Your task to perform on an android device: add a contact Image 0: 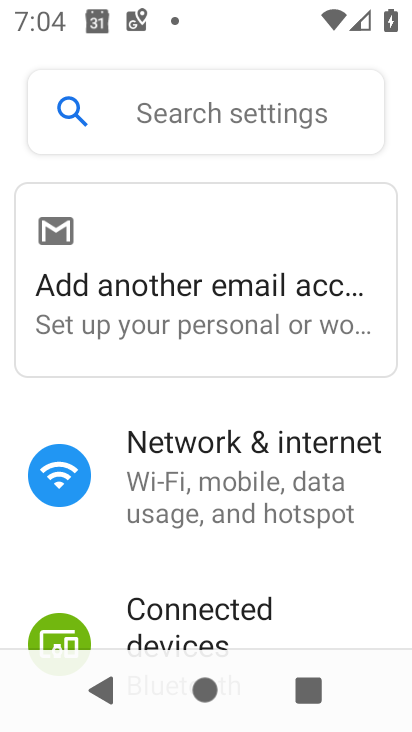
Step 0: press back button
Your task to perform on an android device: add a contact Image 1: 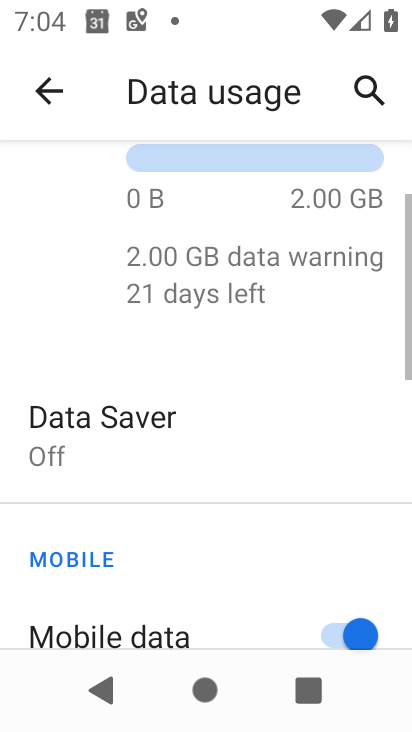
Step 1: press back button
Your task to perform on an android device: add a contact Image 2: 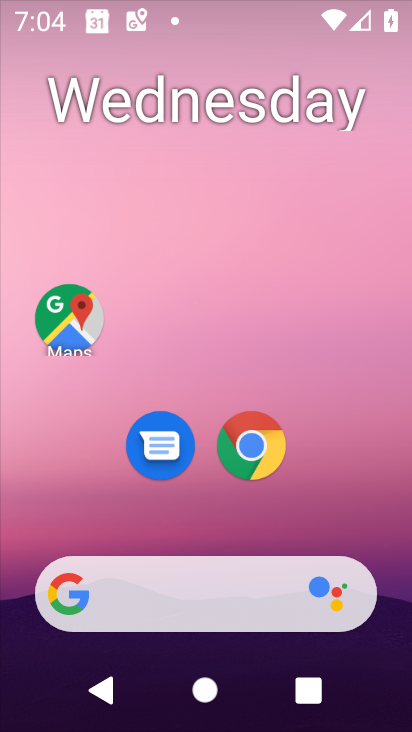
Step 2: press back button
Your task to perform on an android device: add a contact Image 3: 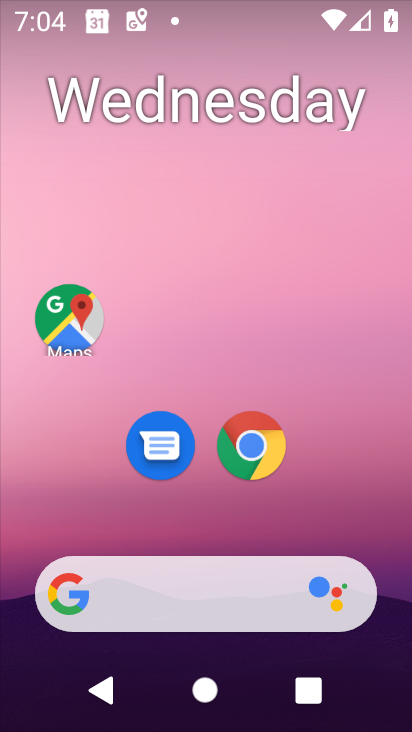
Step 3: drag from (322, 514) to (216, 63)
Your task to perform on an android device: add a contact Image 4: 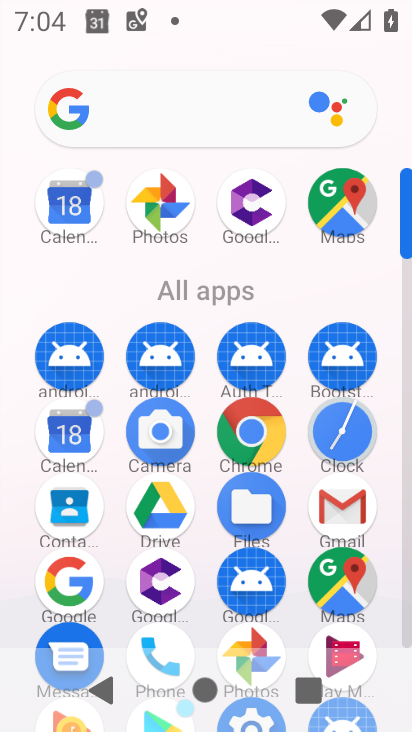
Step 4: drag from (201, 537) to (180, 338)
Your task to perform on an android device: add a contact Image 5: 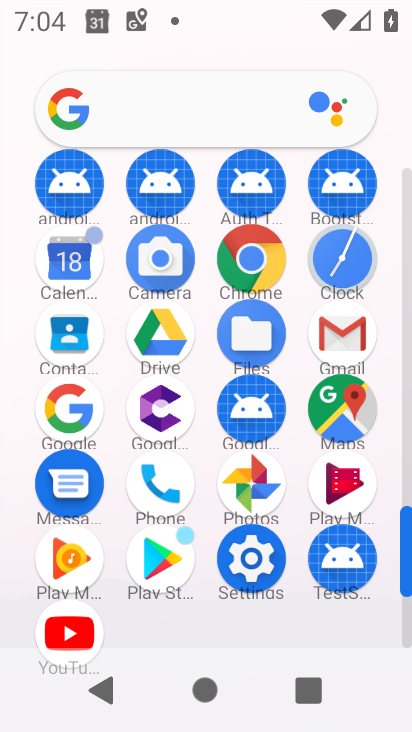
Step 5: click (73, 328)
Your task to perform on an android device: add a contact Image 6: 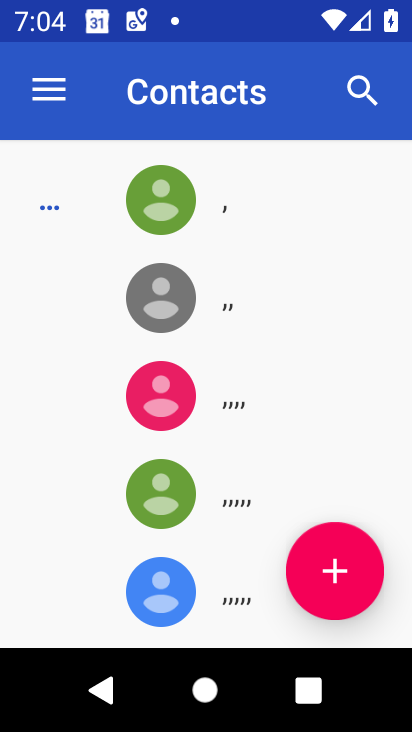
Step 6: click (333, 568)
Your task to perform on an android device: add a contact Image 7: 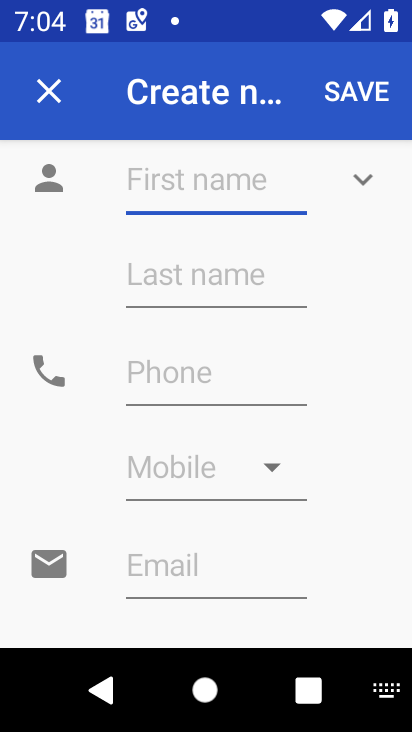
Step 7: click (236, 191)
Your task to perform on an android device: add a contact Image 8: 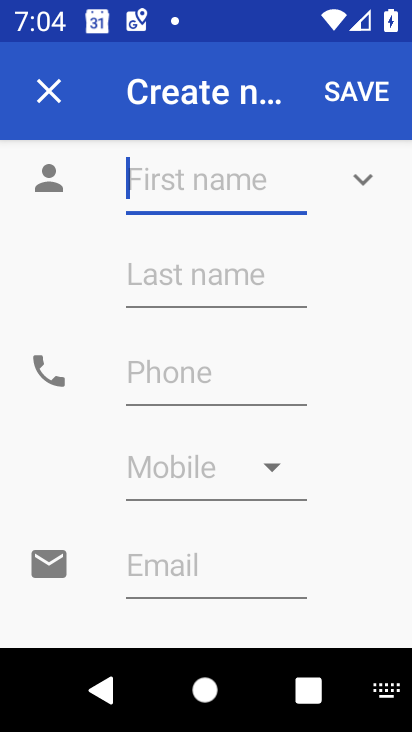
Step 8: type "Ramakrishnan"
Your task to perform on an android device: add a contact Image 9: 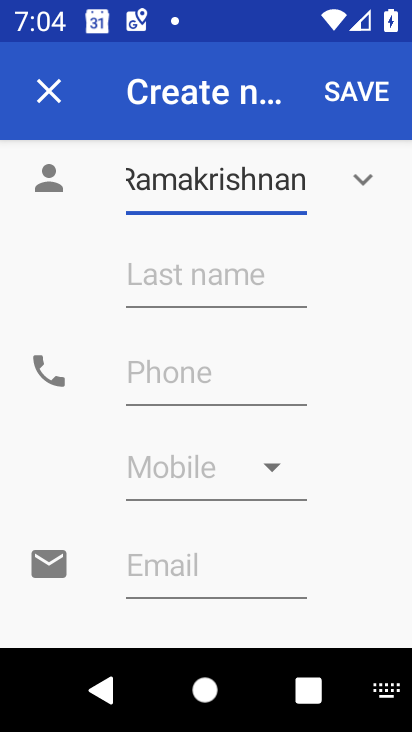
Step 9: click (153, 300)
Your task to perform on an android device: add a contact Image 10: 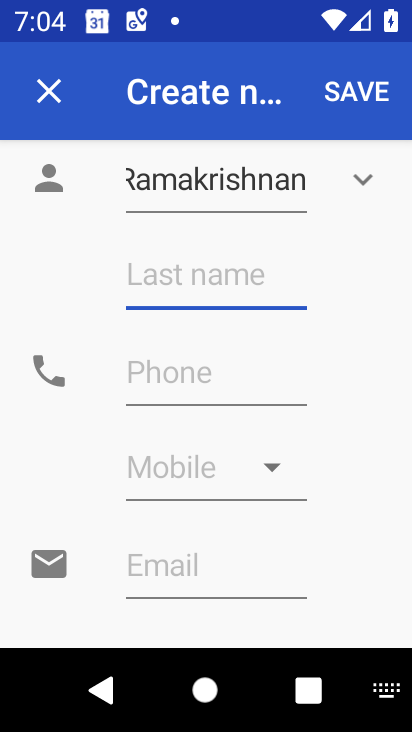
Step 10: type "sarwapallii"
Your task to perform on an android device: add a contact Image 11: 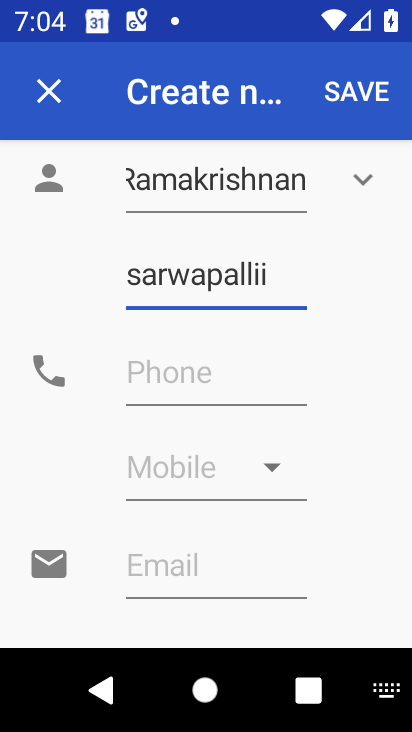
Step 11: click (159, 379)
Your task to perform on an android device: add a contact Image 12: 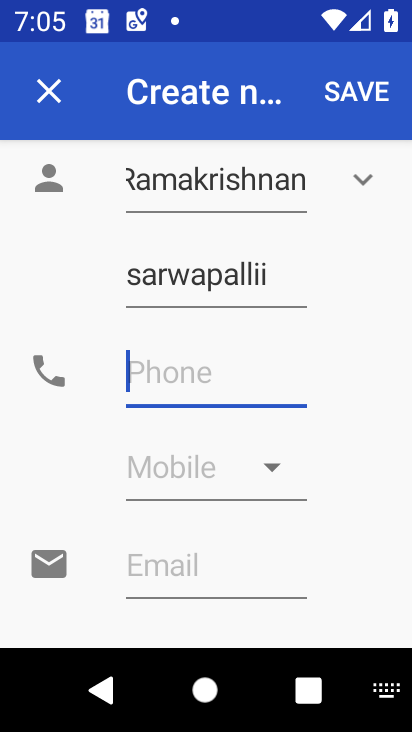
Step 12: type "04534769853"
Your task to perform on an android device: add a contact Image 13: 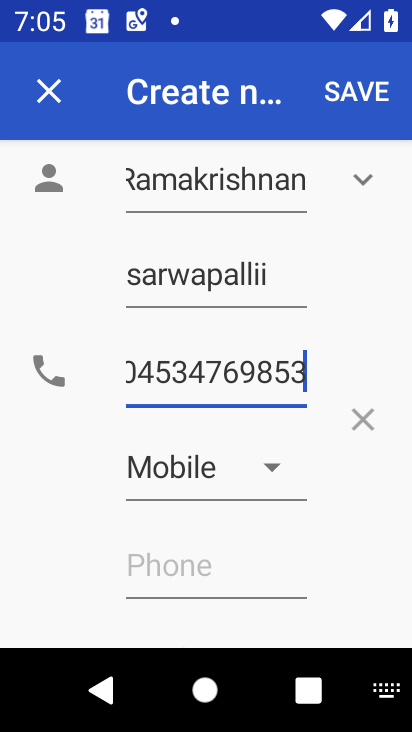
Step 13: click (362, 90)
Your task to perform on an android device: add a contact Image 14: 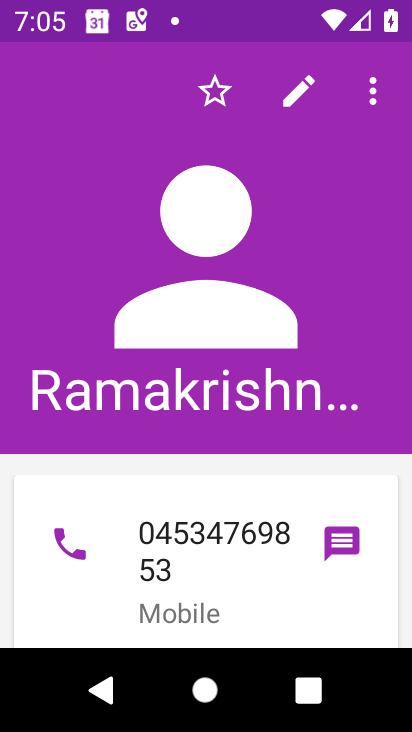
Step 14: task complete